Your task to perform on an android device: Open the calendar and show me this week's events? Image 0: 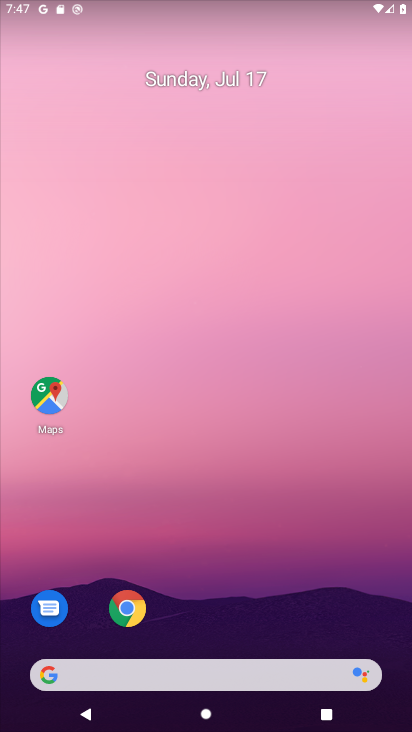
Step 0: drag from (191, 638) to (301, 191)
Your task to perform on an android device: Open the calendar and show me this week's events? Image 1: 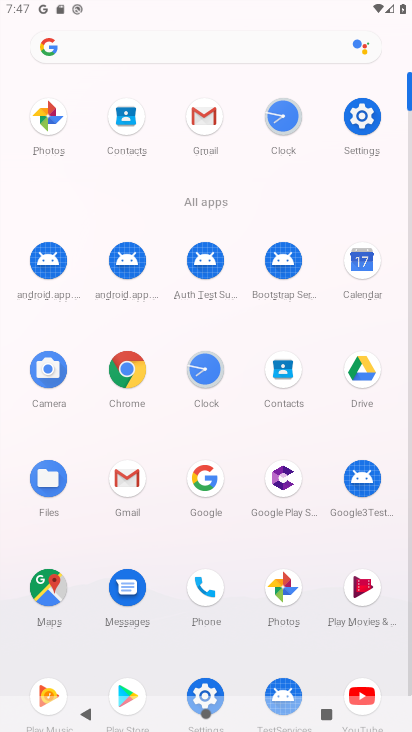
Step 1: click (360, 264)
Your task to perform on an android device: Open the calendar and show me this week's events? Image 2: 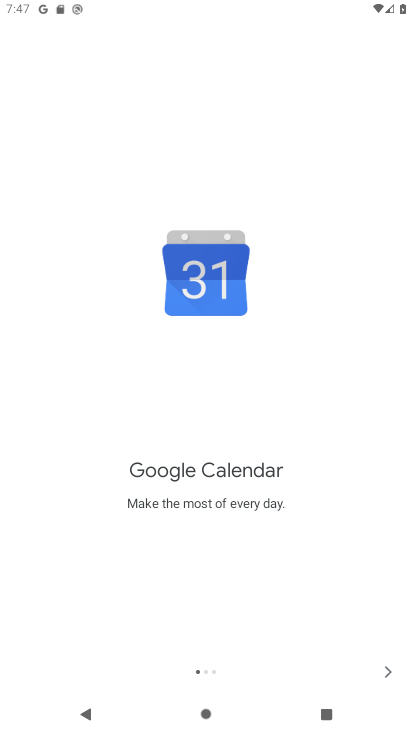
Step 2: click (386, 669)
Your task to perform on an android device: Open the calendar and show me this week's events? Image 3: 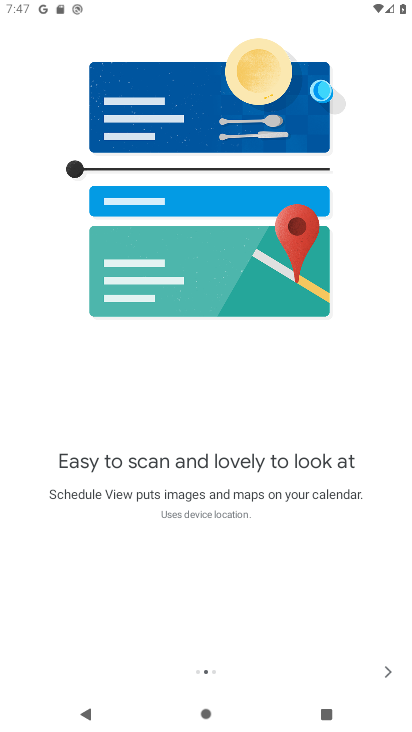
Step 3: click (386, 669)
Your task to perform on an android device: Open the calendar and show me this week's events? Image 4: 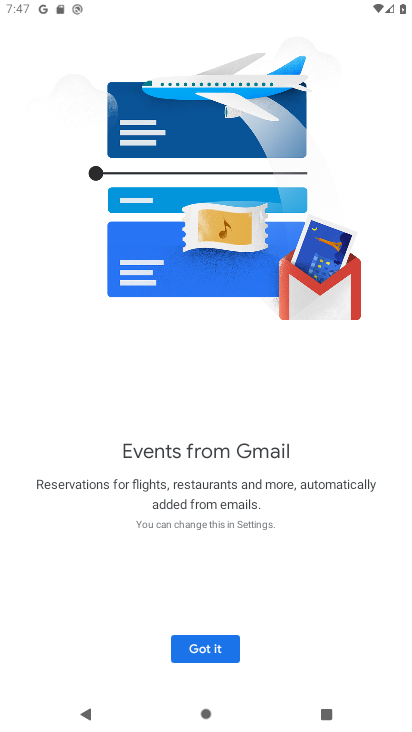
Step 4: click (233, 643)
Your task to perform on an android device: Open the calendar and show me this week's events? Image 5: 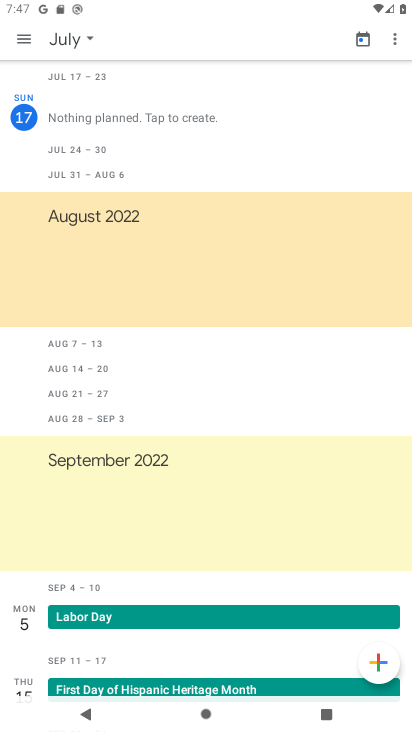
Step 5: click (206, 580)
Your task to perform on an android device: Open the calendar and show me this week's events? Image 6: 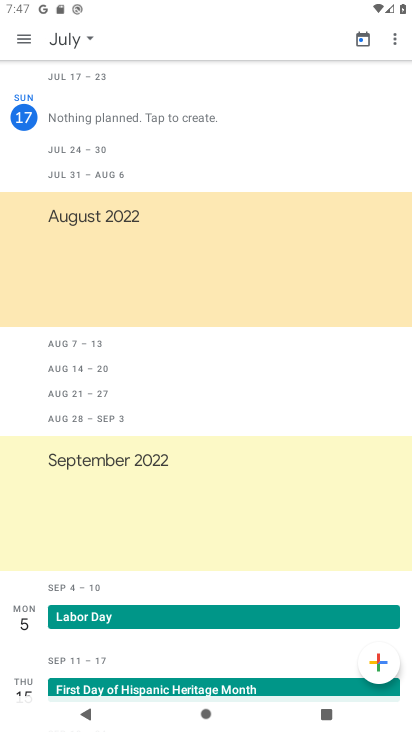
Step 6: click (26, 38)
Your task to perform on an android device: Open the calendar and show me this week's events? Image 7: 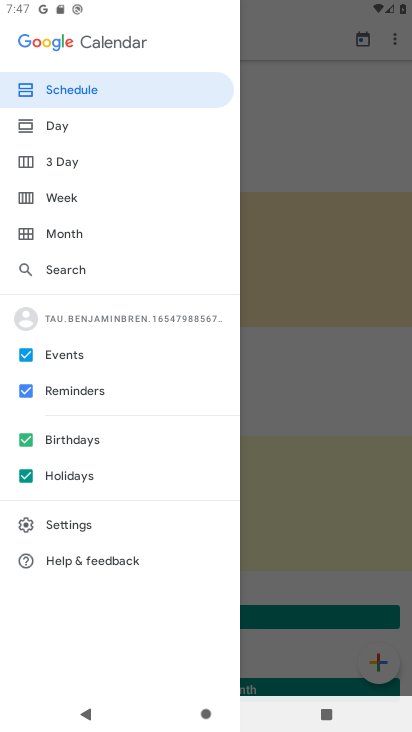
Step 7: click (274, 259)
Your task to perform on an android device: Open the calendar and show me this week's events? Image 8: 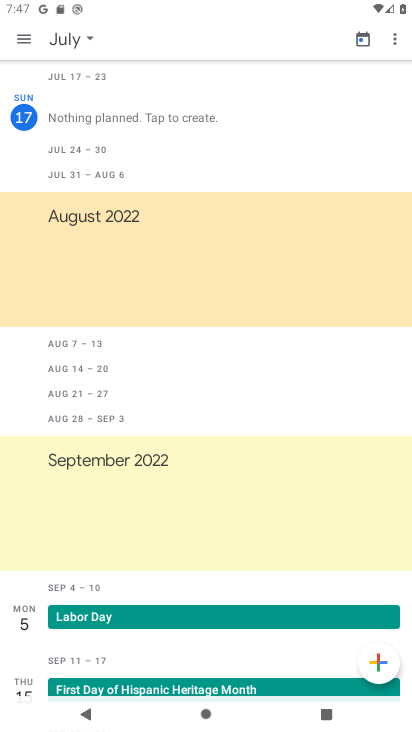
Step 8: click (65, 37)
Your task to perform on an android device: Open the calendar and show me this week's events? Image 9: 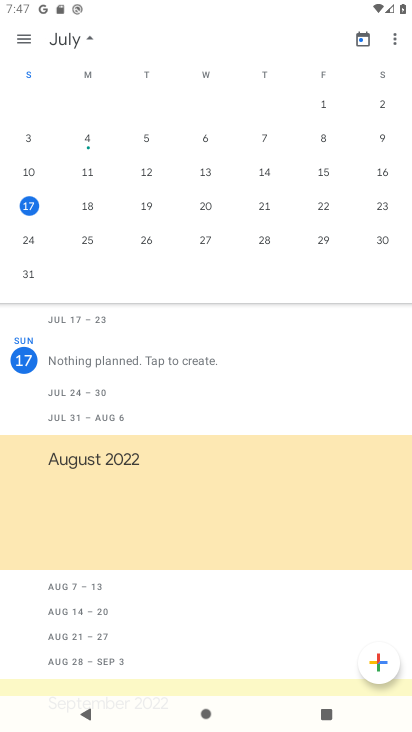
Step 9: click (91, 208)
Your task to perform on an android device: Open the calendar and show me this week's events? Image 10: 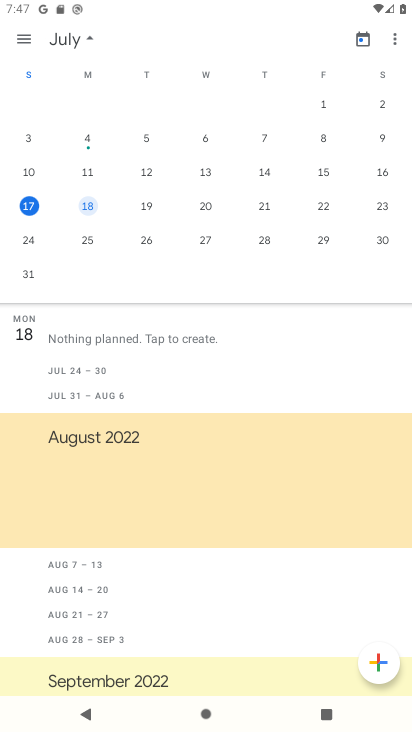
Step 10: click (151, 204)
Your task to perform on an android device: Open the calendar and show me this week's events? Image 11: 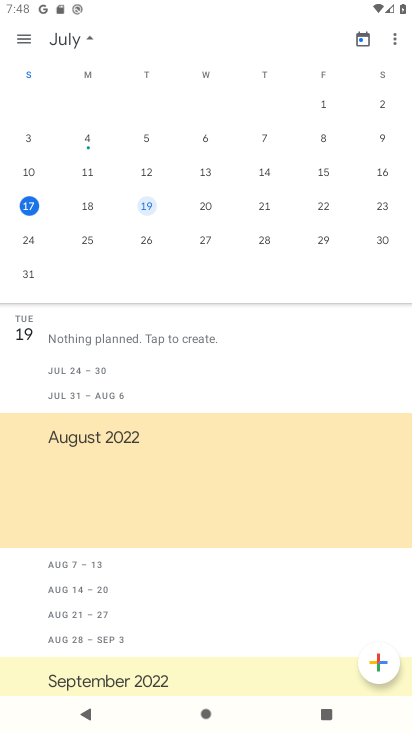
Step 11: click (213, 219)
Your task to perform on an android device: Open the calendar and show me this week's events? Image 12: 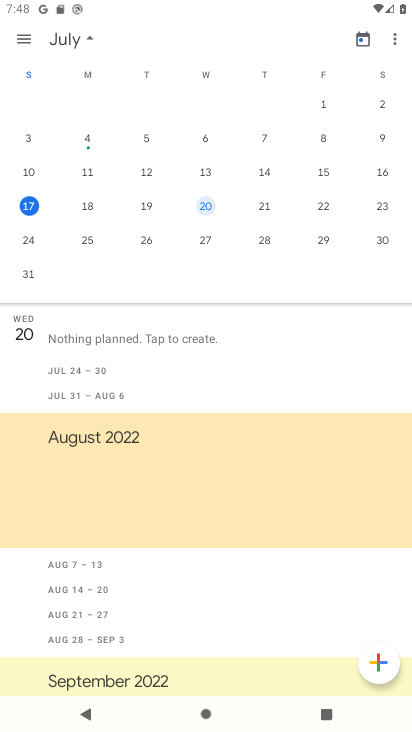
Step 12: click (263, 200)
Your task to perform on an android device: Open the calendar and show me this week's events? Image 13: 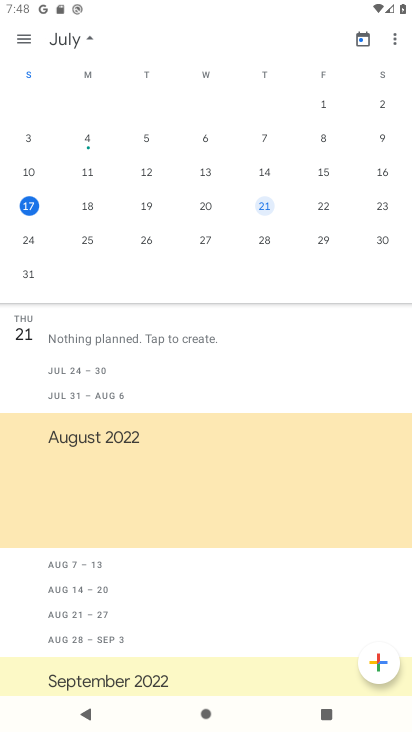
Step 13: click (337, 210)
Your task to perform on an android device: Open the calendar and show me this week's events? Image 14: 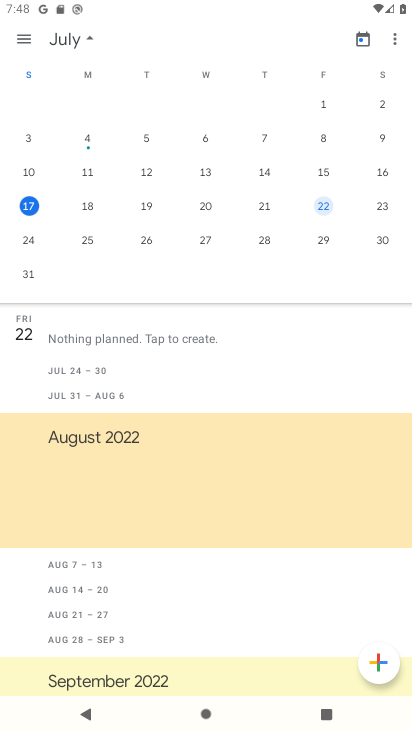
Step 14: task complete